Your task to perform on an android device: open sync settings in chrome Image 0: 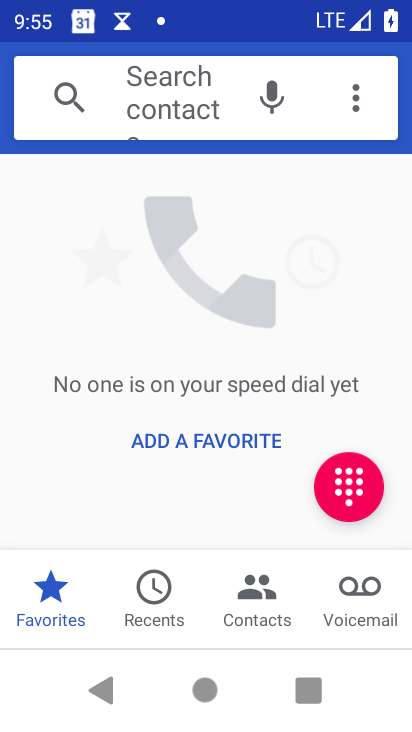
Step 0: press home button
Your task to perform on an android device: open sync settings in chrome Image 1: 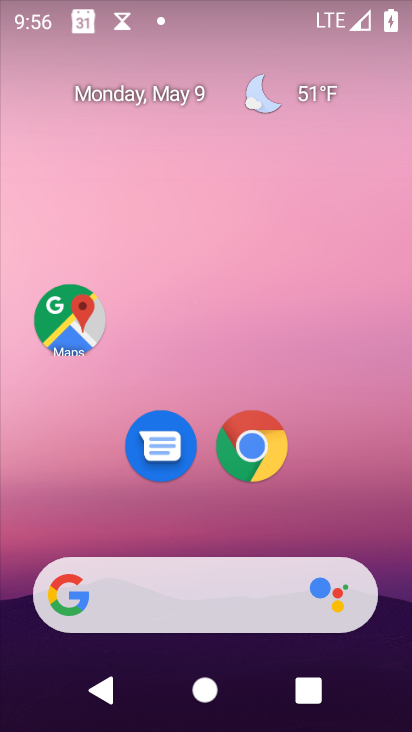
Step 1: click (281, 446)
Your task to perform on an android device: open sync settings in chrome Image 2: 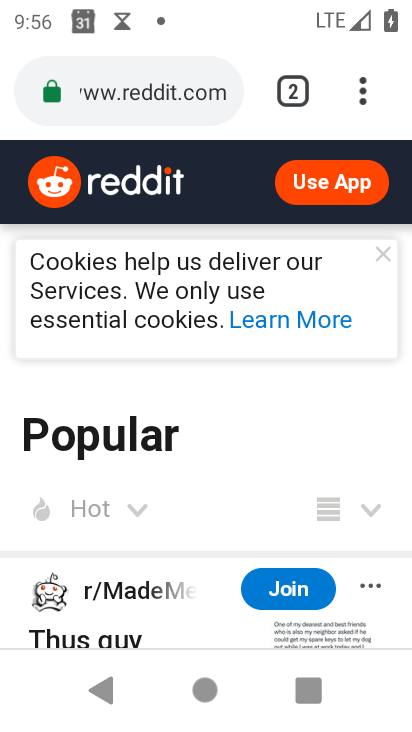
Step 2: click (369, 96)
Your task to perform on an android device: open sync settings in chrome Image 3: 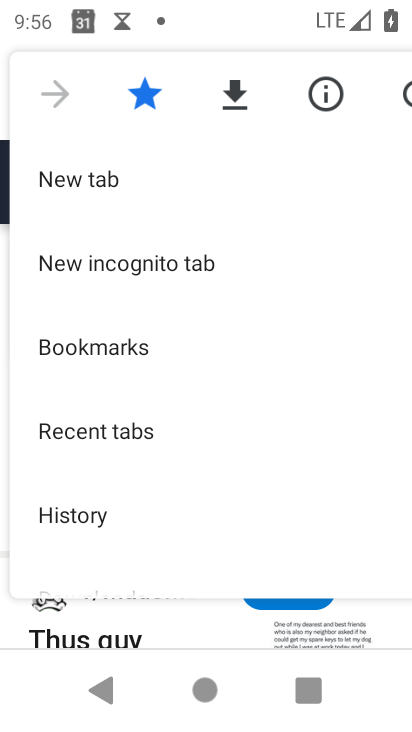
Step 3: drag from (210, 491) to (207, 162)
Your task to perform on an android device: open sync settings in chrome Image 4: 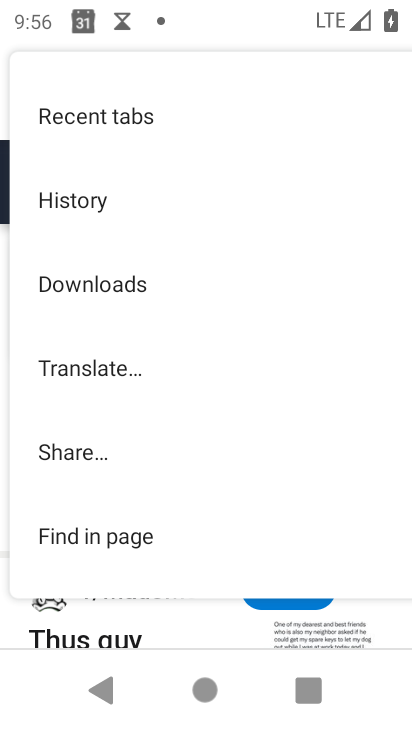
Step 4: drag from (196, 516) to (233, 194)
Your task to perform on an android device: open sync settings in chrome Image 5: 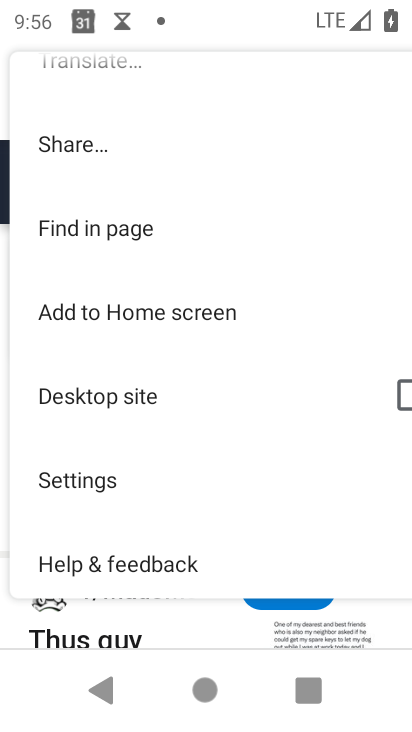
Step 5: click (99, 481)
Your task to perform on an android device: open sync settings in chrome Image 6: 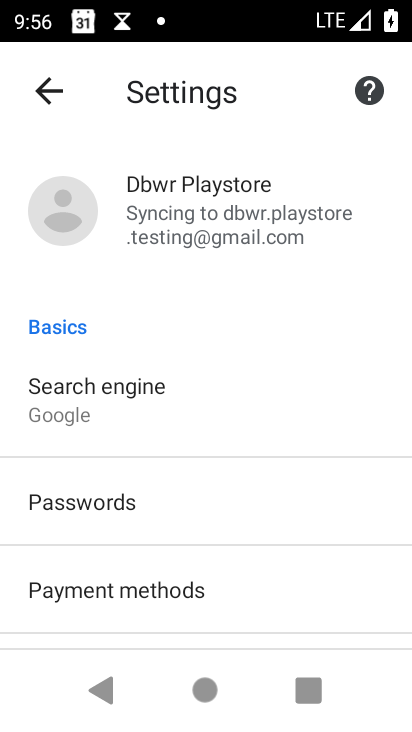
Step 6: drag from (195, 536) to (201, 487)
Your task to perform on an android device: open sync settings in chrome Image 7: 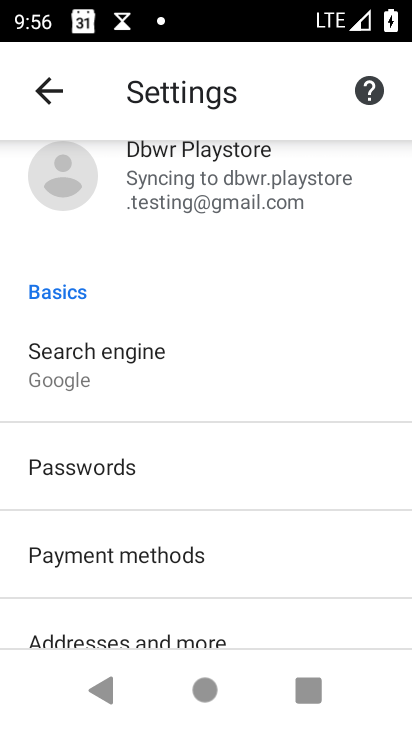
Step 7: click (198, 204)
Your task to perform on an android device: open sync settings in chrome Image 8: 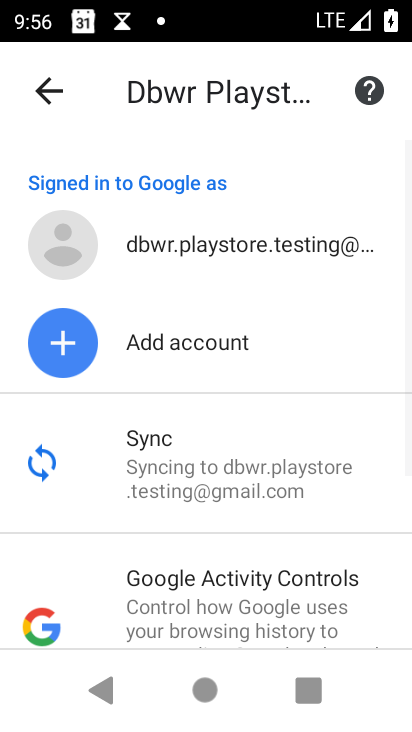
Step 8: click (239, 506)
Your task to perform on an android device: open sync settings in chrome Image 9: 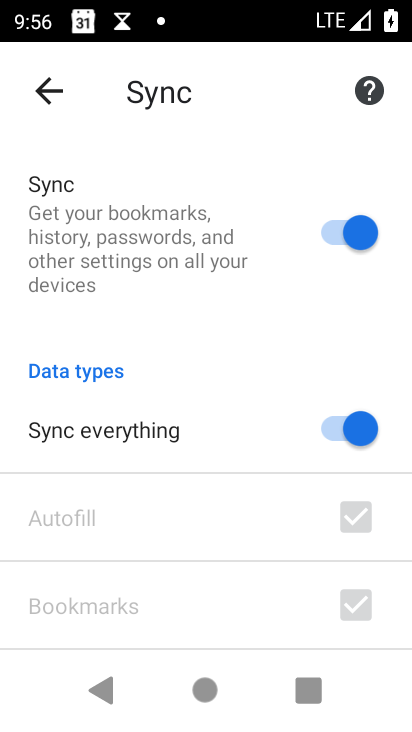
Step 9: task complete